Your task to perform on an android device: Check the weather Image 0: 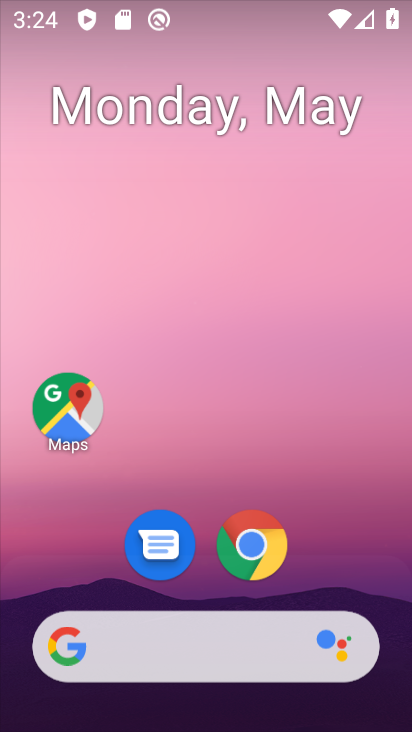
Step 0: drag from (65, 299) to (411, 284)
Your task to perform on an android device: Check the weather Image 1: 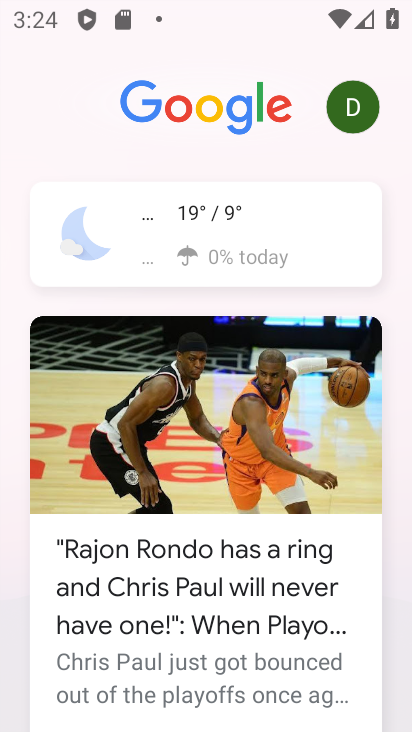
Step 1: click (276, 222)
Your task to perform on an android device: Check the weather Image 2: 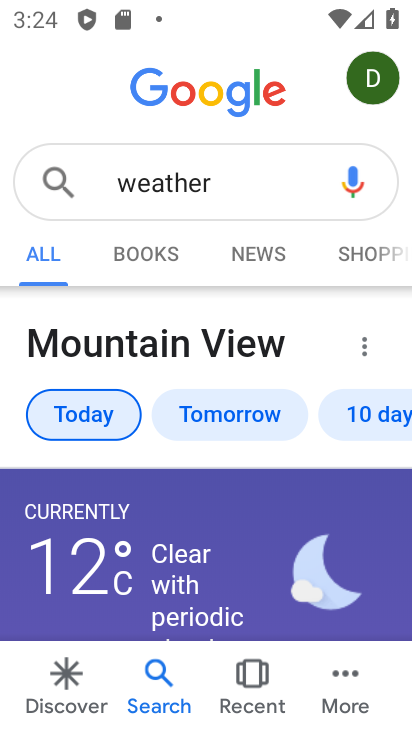
Step 2: drag from (236, 548) to (315, 286)
Your task to perform on an android device: Check the weather Image 3: 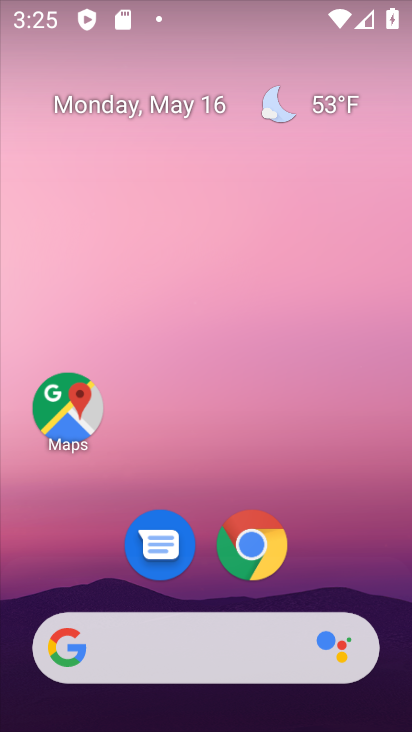
Step 3: click (292, 115)
Your task to perform on an android device: Check the weather Image 4: 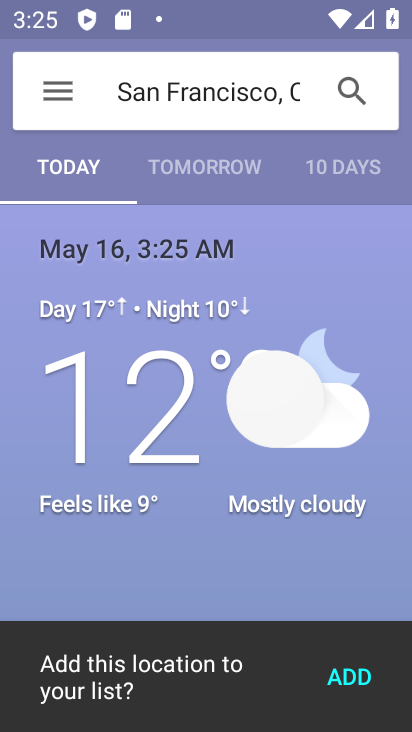
Step 4: task complete